Your task to perform on an android device: turn off priority inbox in the gmail app Image 0: 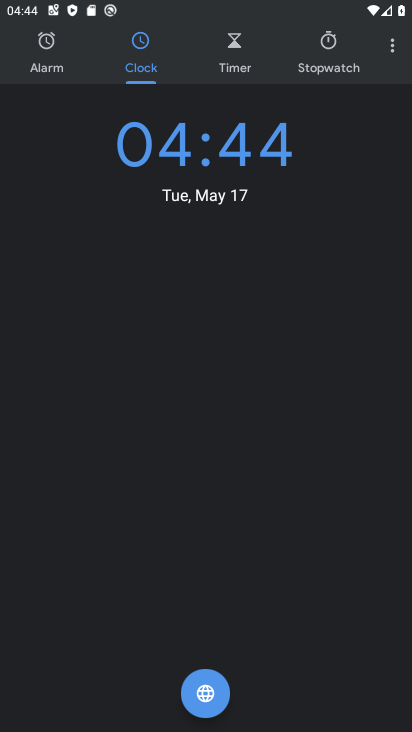
Step 0: press home button
Your task to perform on an android device: turn off priority inbox in the gmail app Image 1: 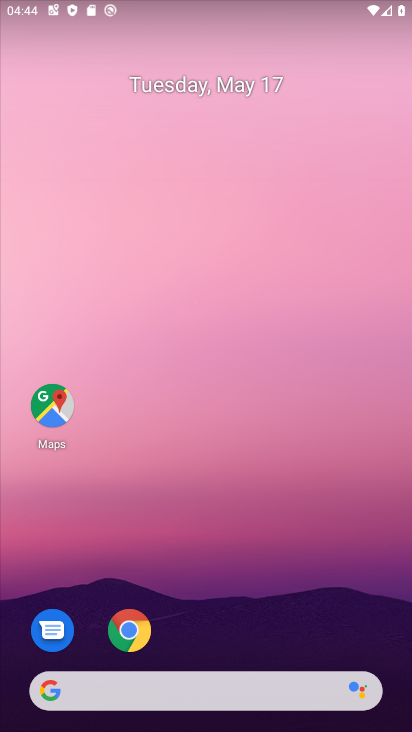
Step 1: drag from (185, 609) to (186, 64)
Your task to perform on an android device: turn off priority inbox in the gmail app Image 2: 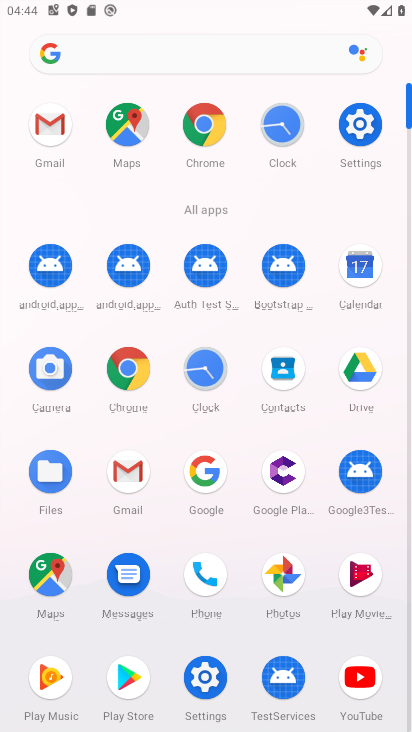
Step 2: click (48, 125)
Your task to perform on an android device: turn off priority inbox in the gmail app Image 3: 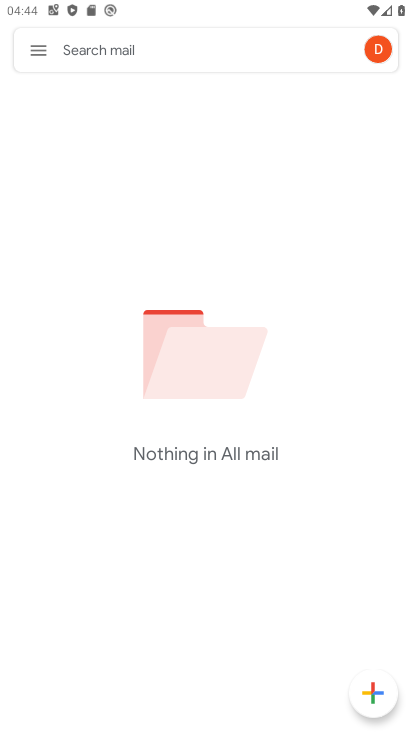
Step 3: click (31, 51)
Your task to perform on an android device: turn off priority inbox in the gmail app Image 4: 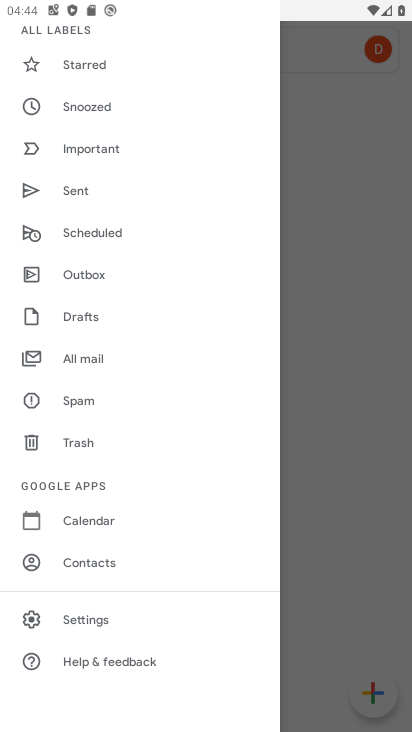
Step 4: drag from (140, 74) to (136, 454)
Your task to perform on an android device: turn off priority inbox in the gmail app Image 5: 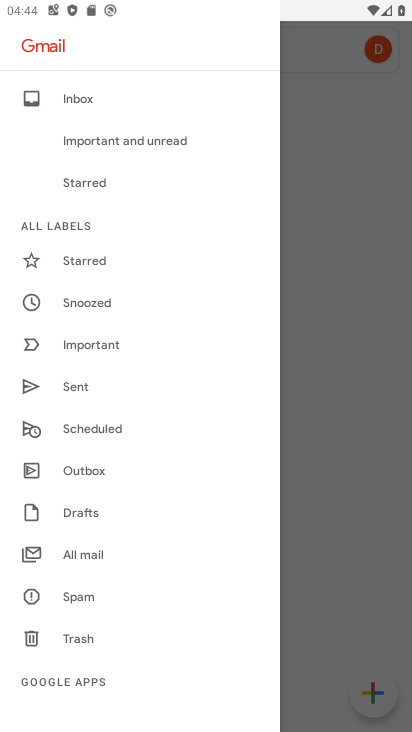
Step 5: drag from (134, 557) to (183, 104)
Your task to perform on an android device: turn off priority inbox in the gmail app Image 6: 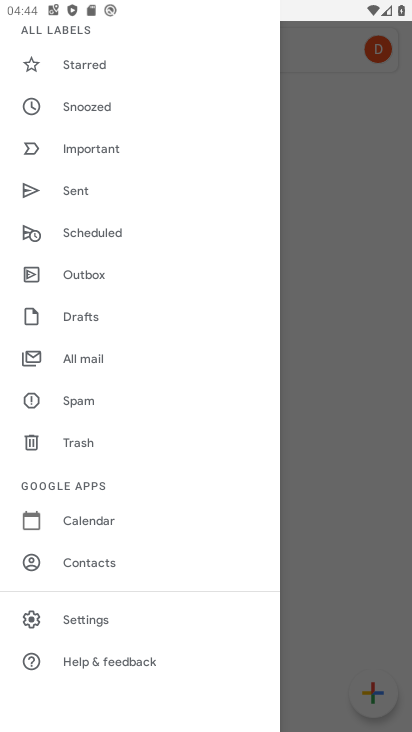
Step 6: click (94, 615)
Your task to perform on an android device: turn off priority inbox in the gmail app Image 7: 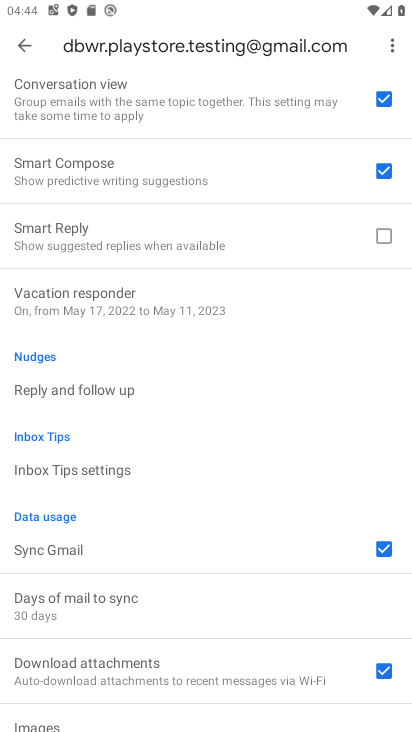
Step 7: drag from (158, 69) to (136, 532)
Your task to perform on an android device: turn off priority inbox in the gmail app Image 8: 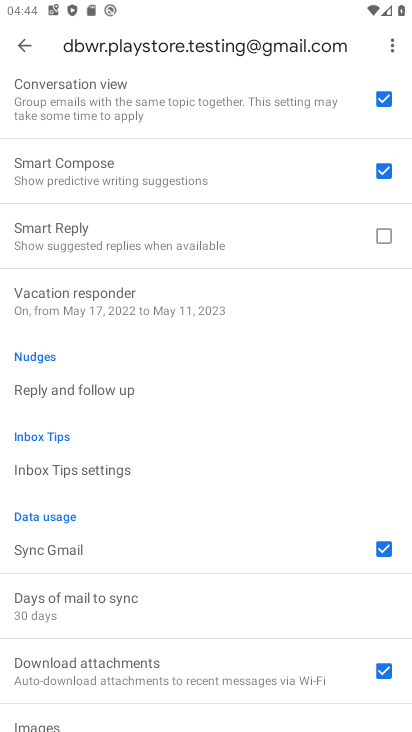
Step 8: drag from (113, 128) to (89, 532)
Your task to perform on an android device: turn off priority inbox in the gmail app Image 9: 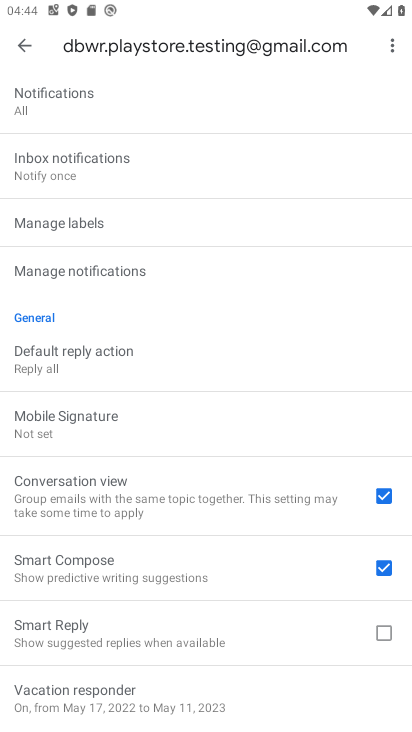
Step 9: drag from (130, 166) to (70, 436)
Your task to perform on an android device: turn off priority inbox in the gmail app Image 10: 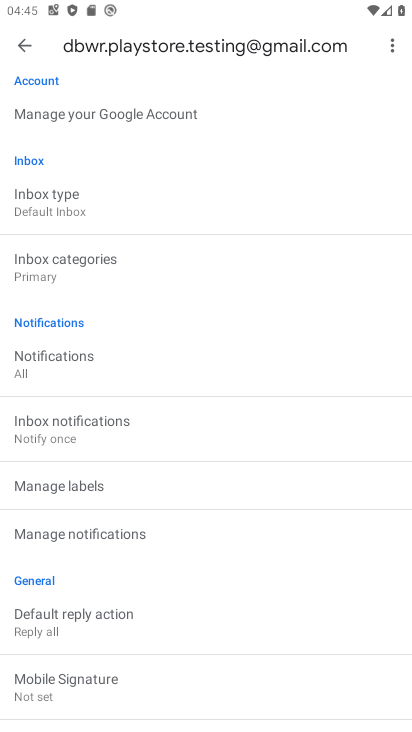
Step 10: click (29, 255)
Your task to perform on an android device: turn off priority inbox in the gmail app Image 11: 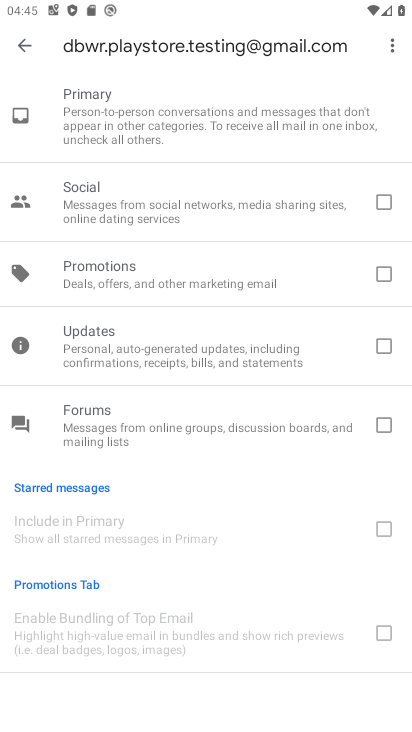
Step 11: click (15, 50)
Your task to perform on an android device: turn off priority inbox in the gmail app Image 12: 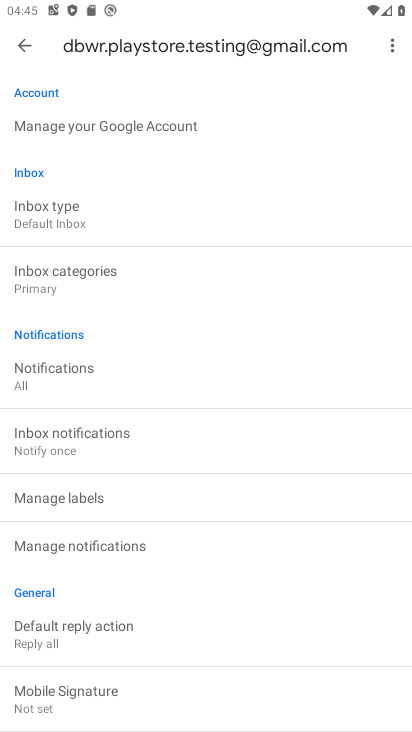
Step 12: click (50, 211)
Your task to perform on an android device: turn off priority inbox in the gmail app Image 13: 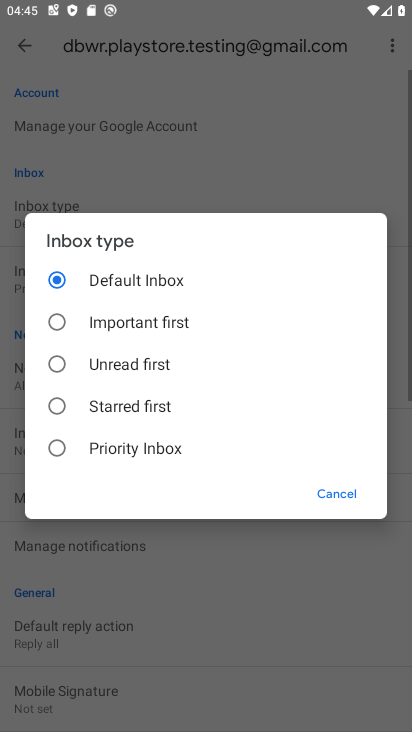
Step 13: click (131, 280)
Your task to perform on an android device: turn off priority inbox in the gmail app Image 14: 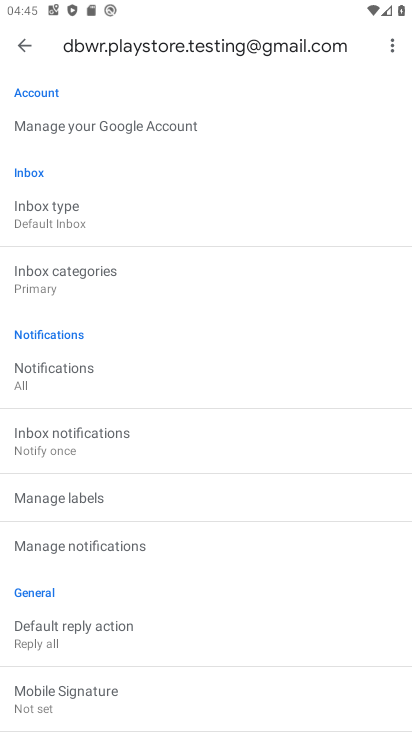
Step 14: task complete